Your task to perform on an android device: Open Youtube and go to "Your channel" Image 0: 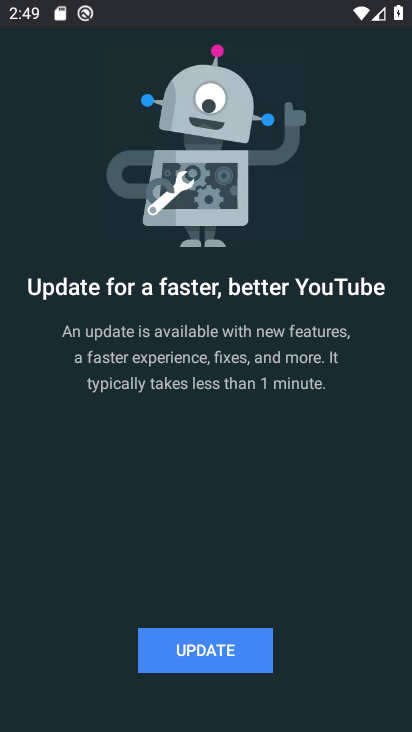
Step 0: drag from (328, 572) to (372, 96)
Your task to perform on an android device: Open Youtube and go to "Your channel" Image 1: 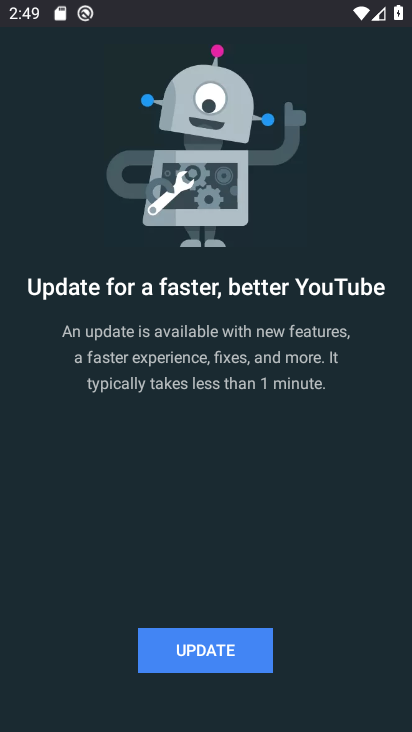
Step 1: press home button
Your task to perform on an android device: Open Youtube and go to "Your channel" Image 2: 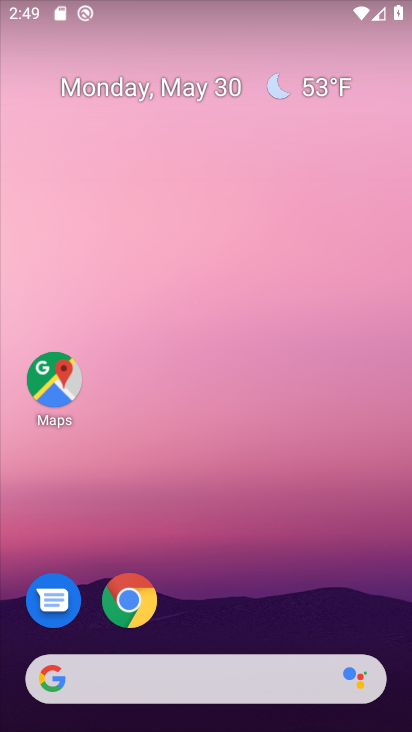
Step 2: drag from (338, 479) to (379, 62)
Your task to perform on an android device: Open Youtube and go to "Your channel" Image 3: 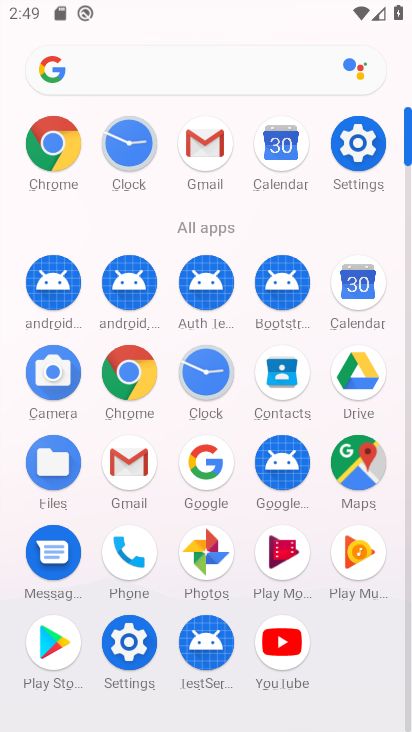
Step 3: click (277, 661)
Your task to perform on an android device: Open Youtube and go to "Your channel" Image 4: 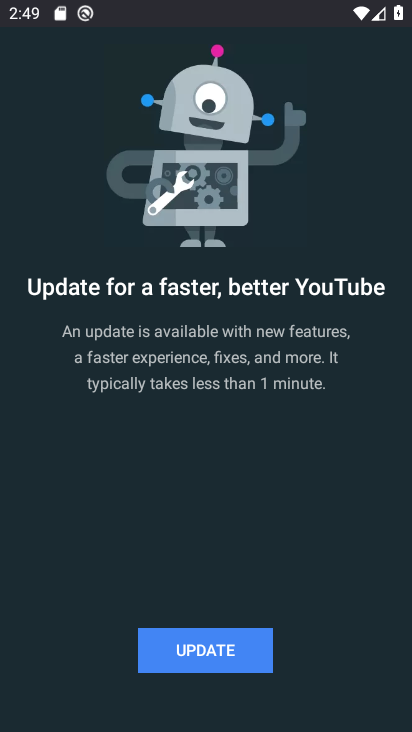
Step 4: click (204, 648)
Your task to perform on an android device: Open Youtube and go to "Your channel" Image 5: 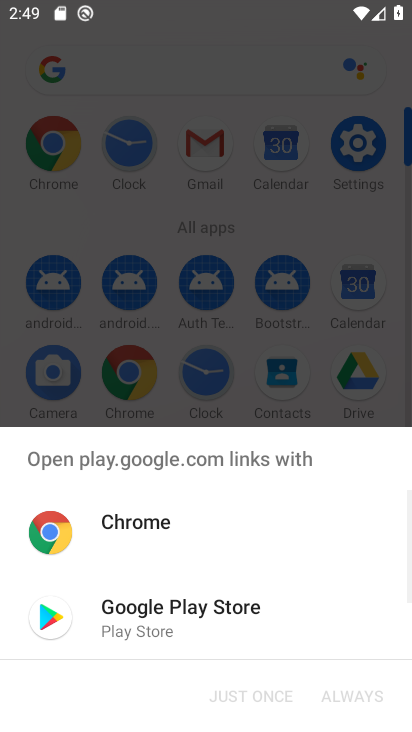
Step 5: click (171, 624)
Your task to perform on an android device: Open Youtube and go to "Your channel" Image 6: 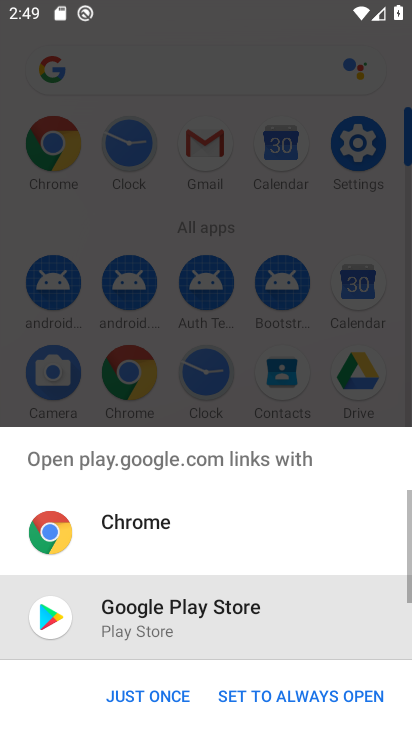
Step 6: click (174, 696)
Your task to perform on an android device: Open Youtube and go to "Your channel" Image 7: 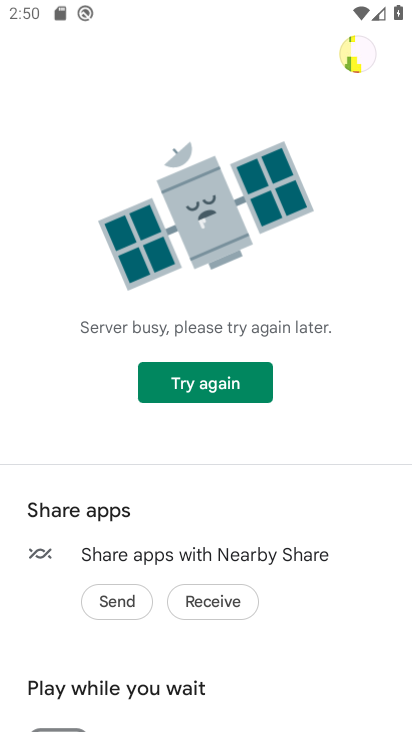
Step 7: task complete